Your task to perform on an android device: toggle javascript in the chrome app Image 0: 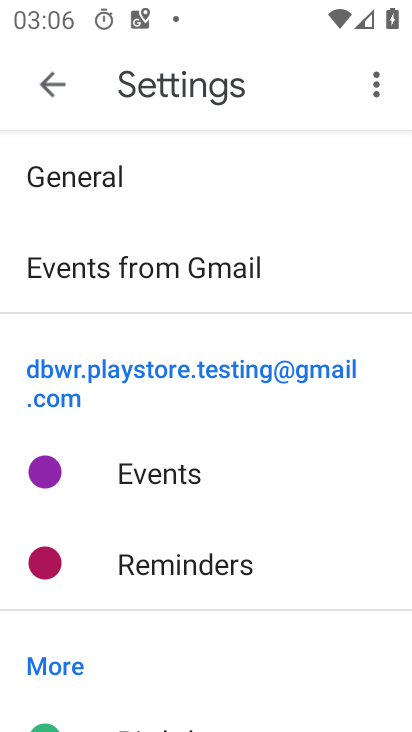
Step 0: press home button
Your task to perform on an android device: toggle javascript in the chrome app Image 1: 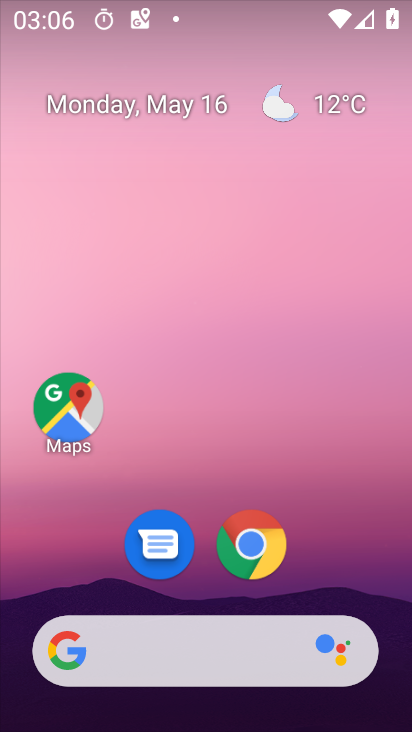
Step 1: click (252, 547)
Your task to perform on an android device: toggle javascript in the chrome app Image 2: 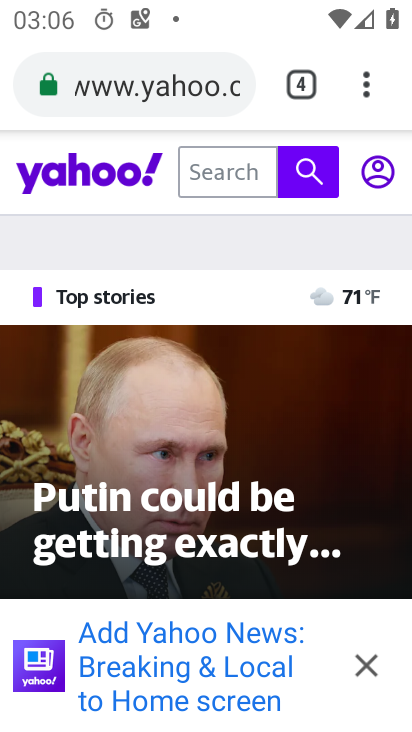
Step 2: click (367, 93)
Your task to perform on an android device: toggle javascript in the chrome app Image 3: 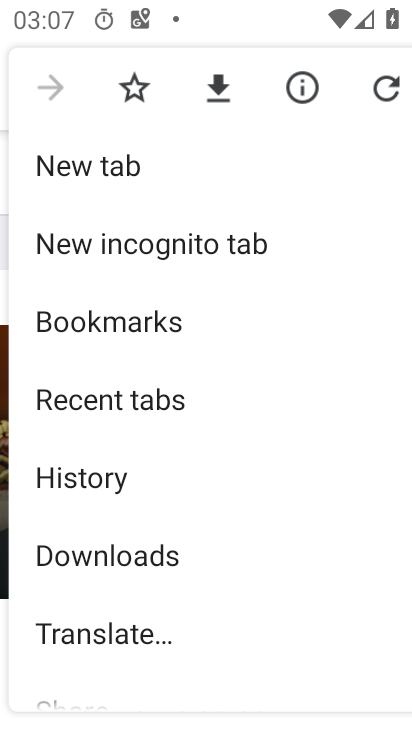
Step 3: drag from (85, 643) to (132, 289)
Your task to perform on an android device: toggle javascript in the chrome app Image 4: 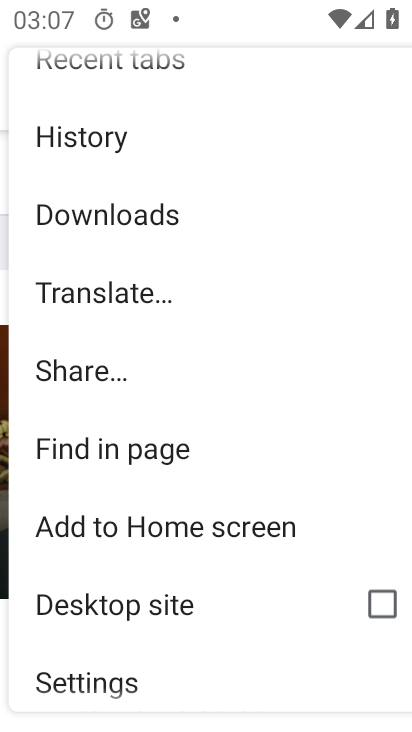
Step 4: click (75, 679)
Your task to perform on an android device: toggle javascript in the chrome app Image 5: 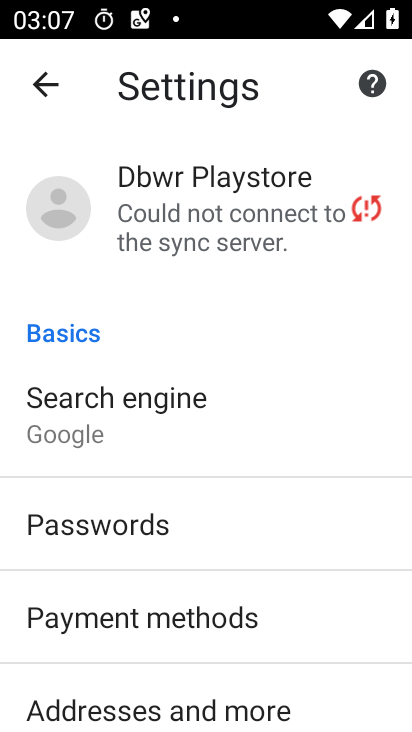
Step 5: drag from (97, 694) to (146, 265)
Your task to perform on an android device: toggle javascript in the chrome app Image 6: 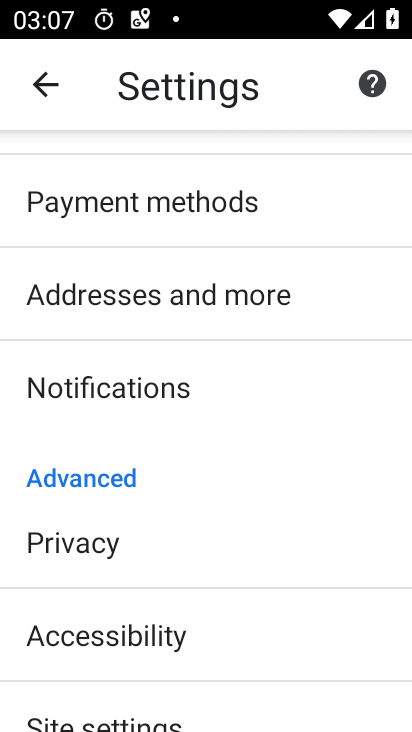
Step 6: drag from (140, 623) to (177, 304)
Your task to perform on an android device: toggle javascript in the chrome app Image 7: 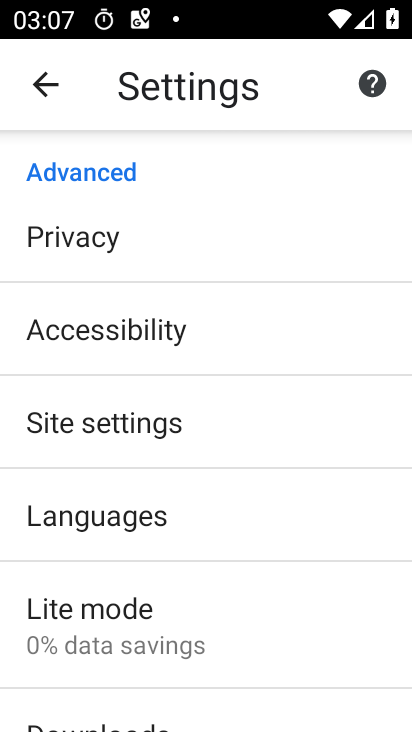
Step 7: click (120, 417)
Your task to perform on an android device: toggle javascript in the chrome app Image 8: 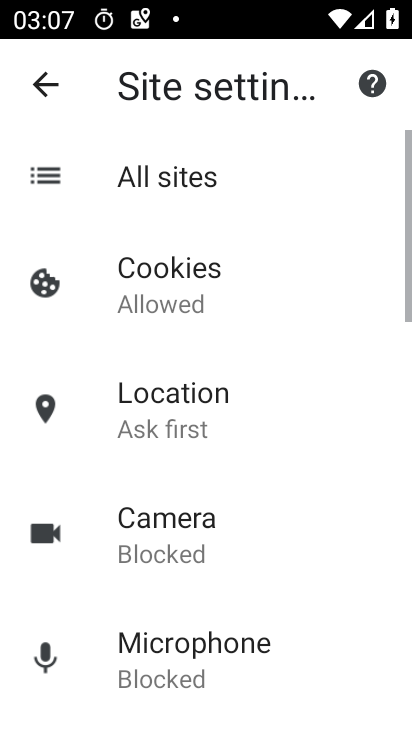
Step 8: drag from (168, 633) to (165, 332)
Your task to perform on an android device: toggle javascript in the chrome app Image 9: 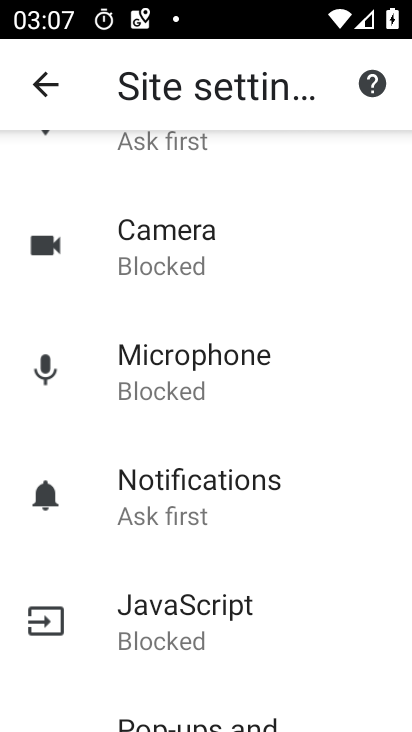
Step 9: click (193, 610)
Your task to perform on an android device: toggle javascript in the chrome app Image 10: 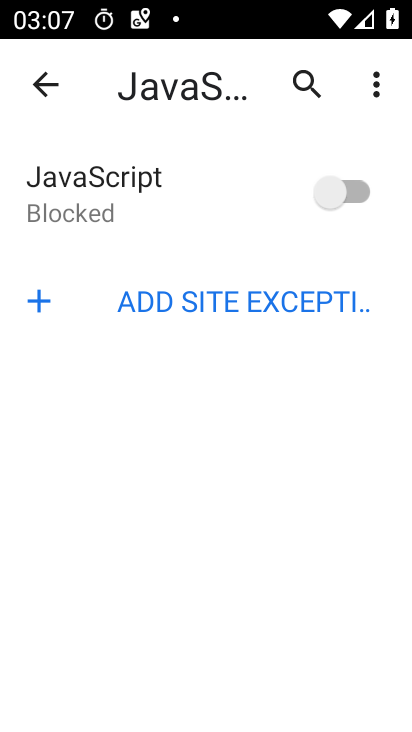
Step 10: click (357, 191)
Your task to perform on an android device: toggle javascript in the chrome app Image 11: 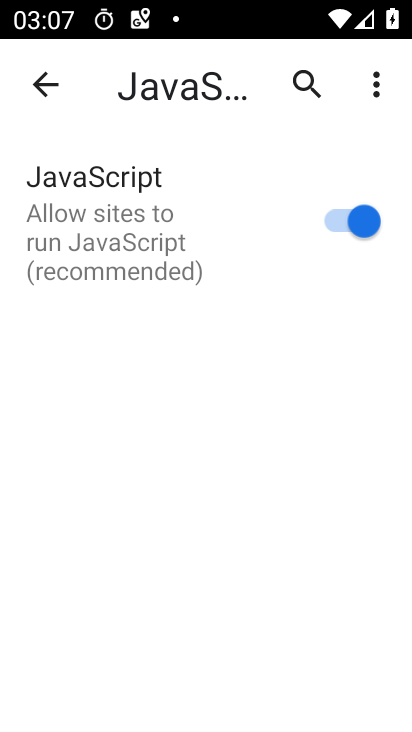
Step 11: task complete